Your task to perform on an android device: change notification settings in the gmail app Image 0: 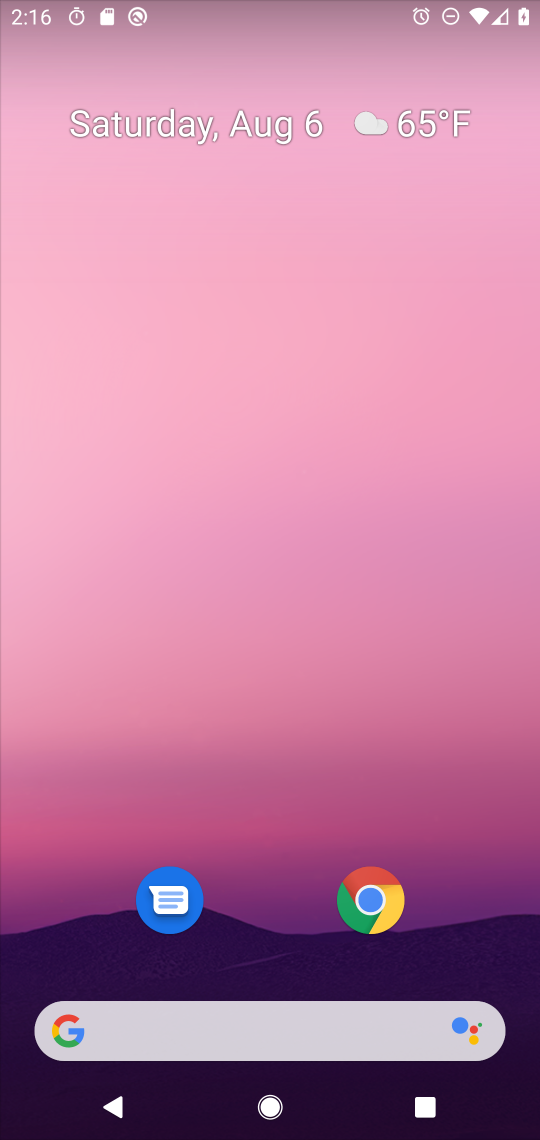
Step 0: drag from (265, 935) to (248, 293)
Your task to perform on an android device: change notification settings in the gmail app Image 1: 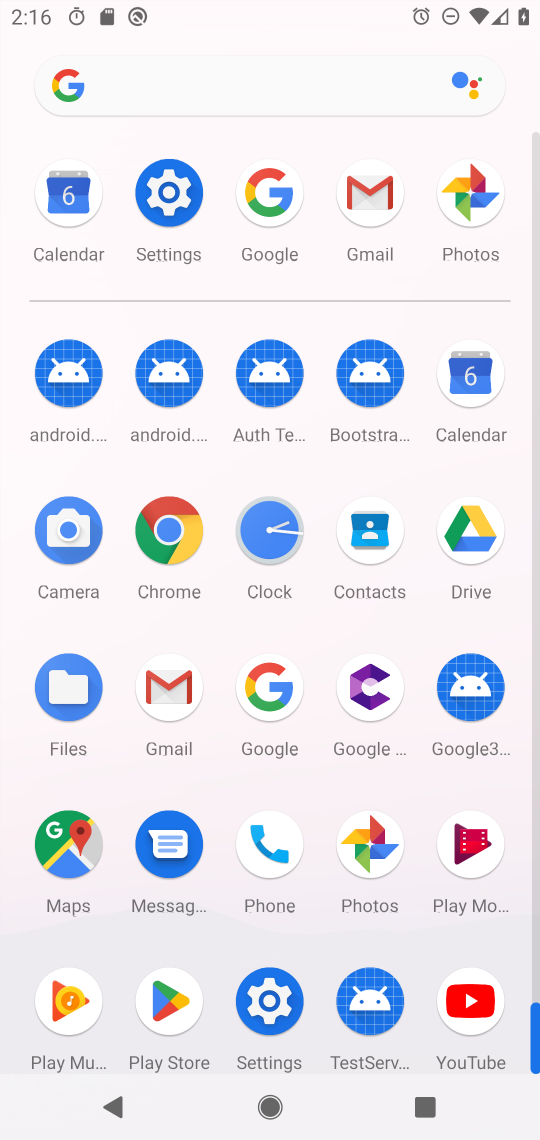
Step 1: click (371, 195)
Your task to perform on an android device: change notification settings in the gmail app Image 2: 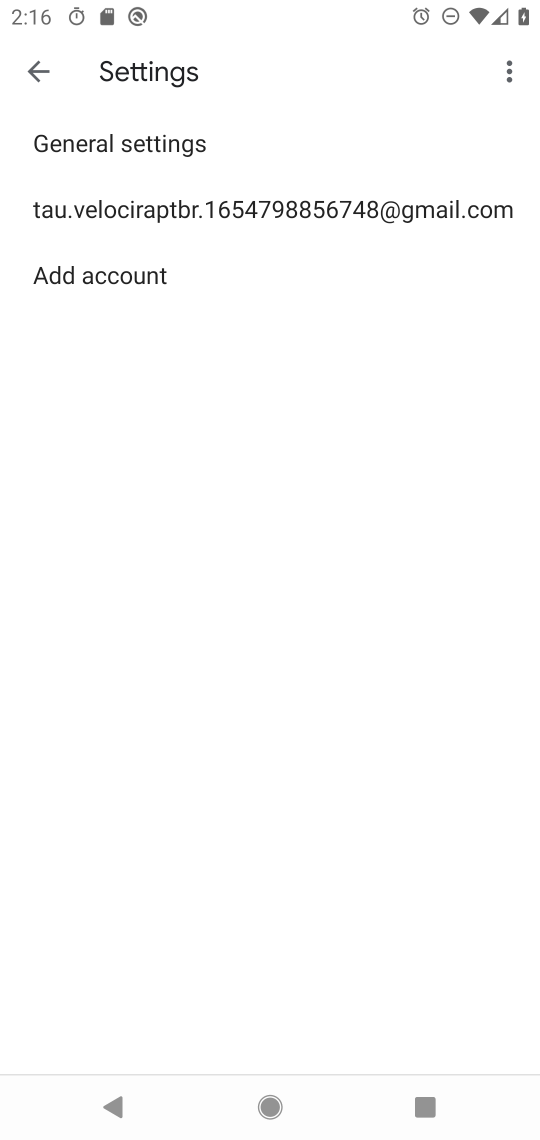
Step 2: click (182, 205)
Your task to perform on an android device: change notification settings in the gmail app Image 3: 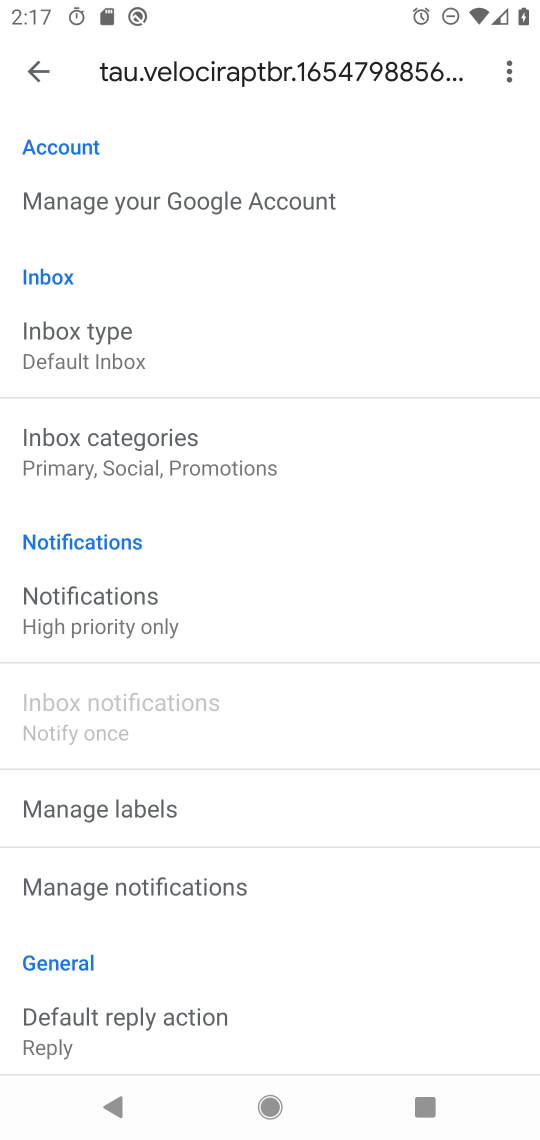
Step 3: drag from (156, 209) to (180, 837)
Your task to perform on an android device: change notification settings in the gmail app Image 4: 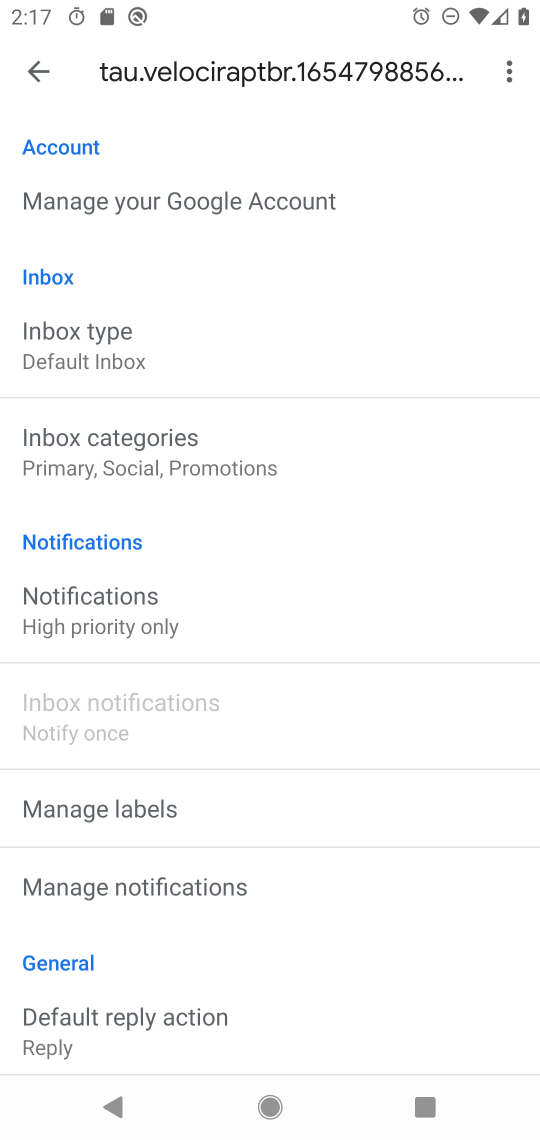
Step 4: click (94, 609)
Your task to perform on an android device: change notification settings in the gmail app Image 5: 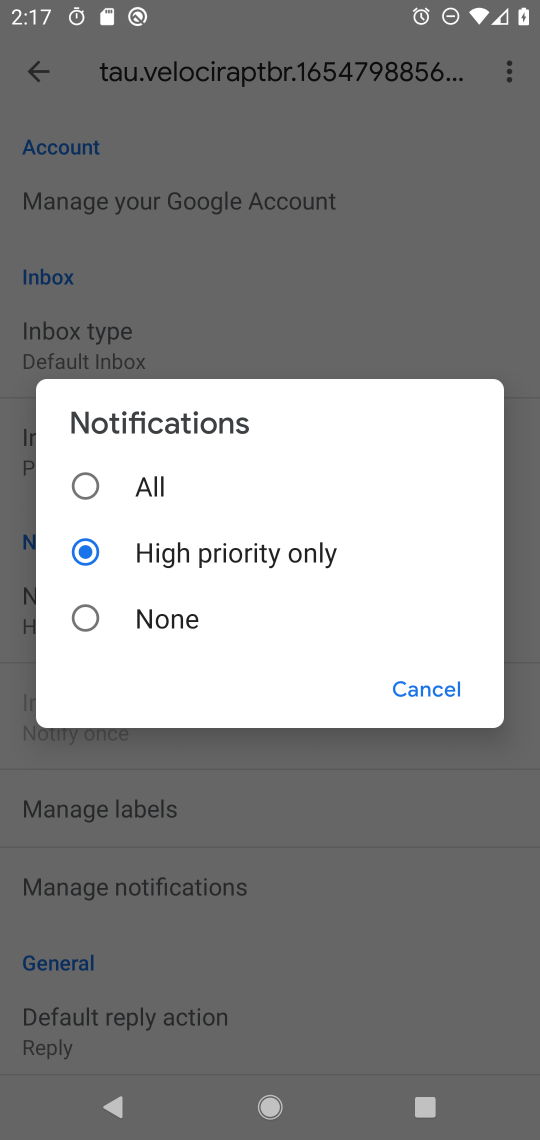
Step 5: click (81, 483)
Your task to perform on an android device: change notification settings in the gmail app Image 6: 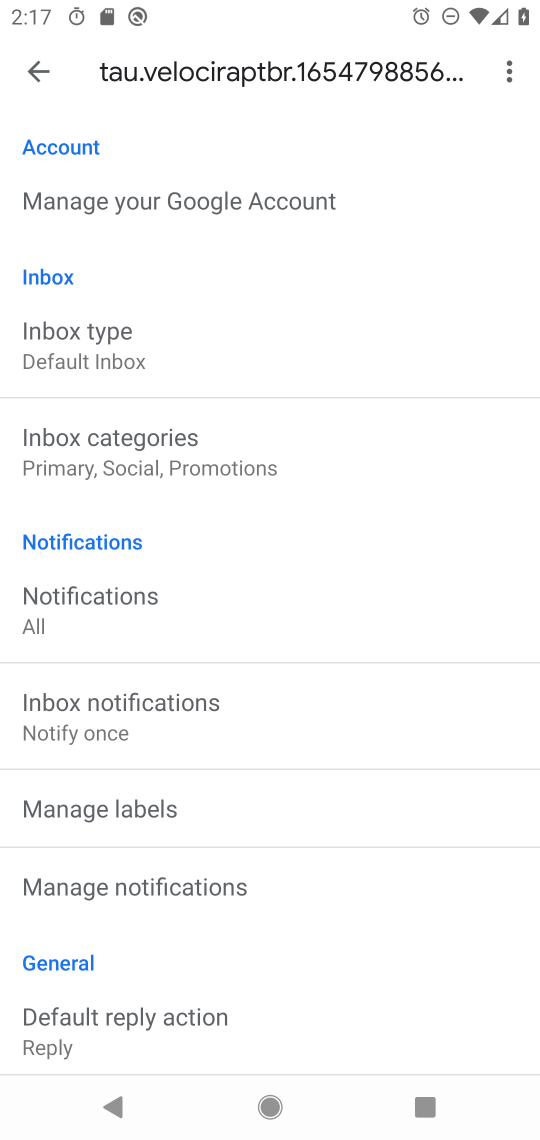
Step 6: task complete